Your task to perform on an android device: show emergency info Image 0: 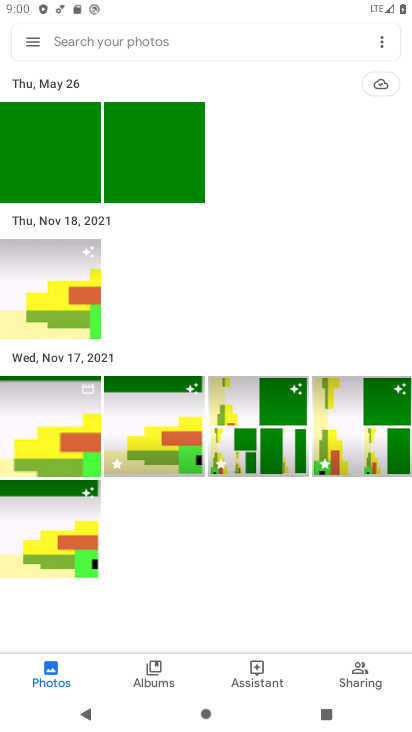
Step 0: click (398, 478)
Your task to perform on an android device: show emergency info Image 1: 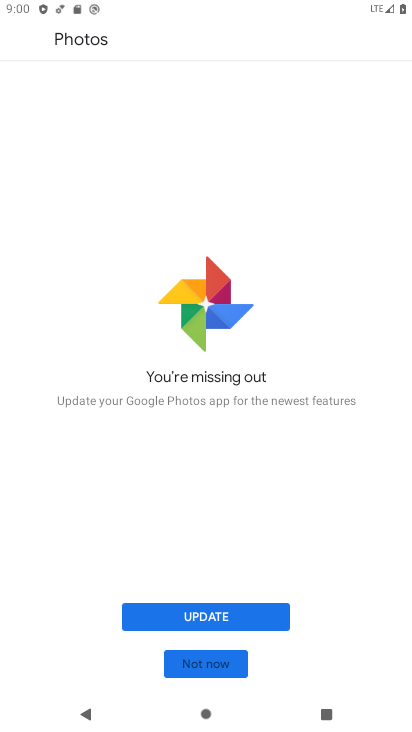
Step 1: press home button
Your task to perform on an android device: show emergency info Image 2: 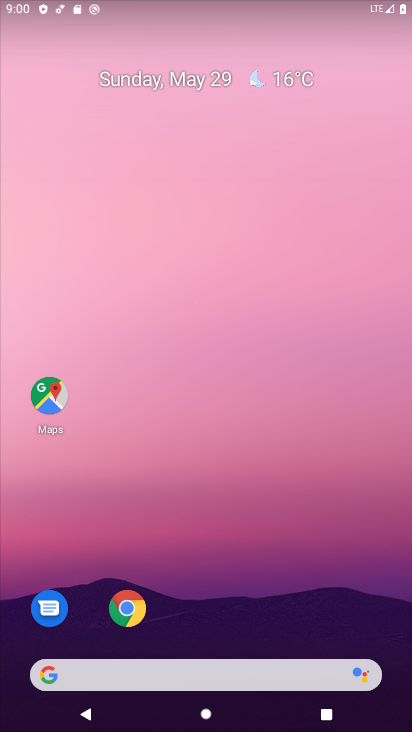
Step 2: drag from (191, 15) to (292, 21)
Your task to perform on an android device: show emergency info Image 3: 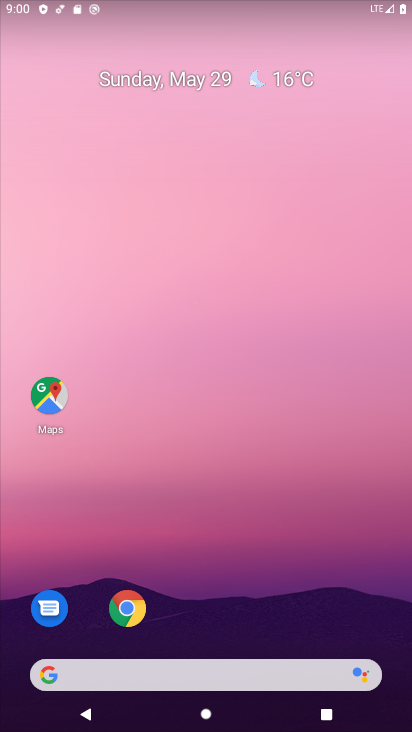
Step 3: drag from (175, 616) to (213, 99)
Your task to perform on an android device: show emergency info Image 4: 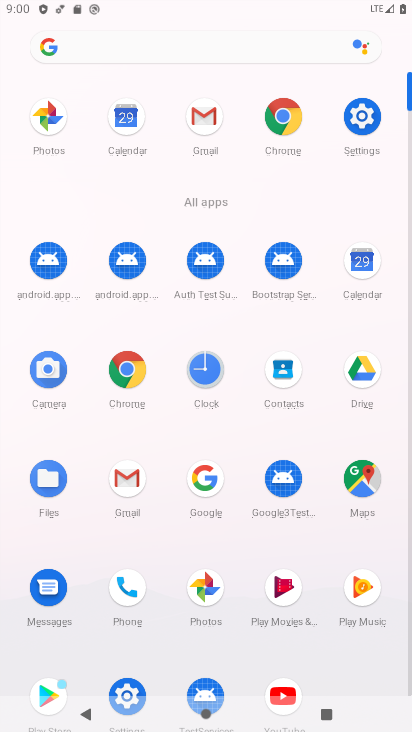
Step 4: click (354, 132)
Your task to perform on an android device: show emergency info Image 5: 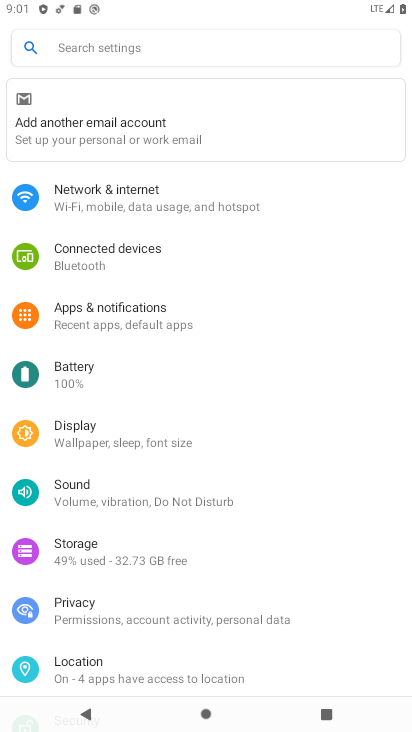
Step 5: drag from (148, 614) to (328, 7)
Your task to perform on an android device: show emergency info Image 6: 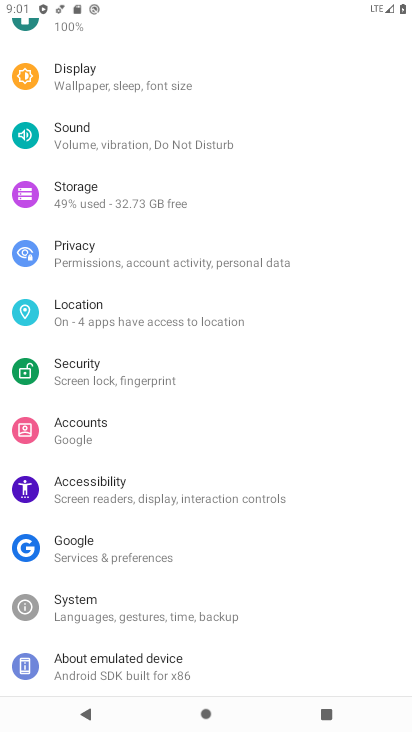
Step 6: drag from (161, 477) to (336, 657)
Your task to perform on an android device: show emergency info Image 7: 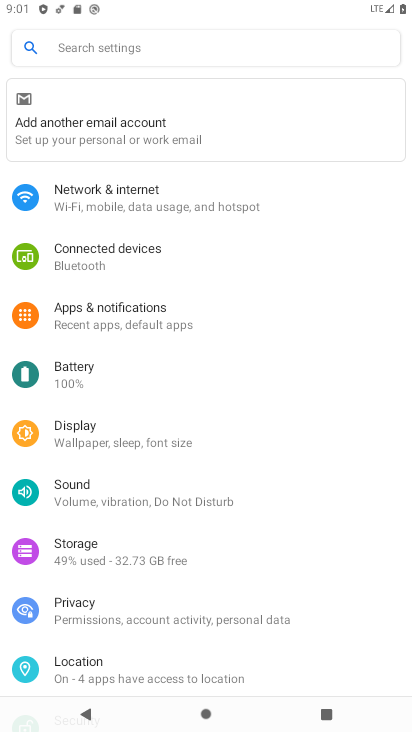
Step 7: click (107, 661)
Your task to perform on an android device: show emergency info Image 8: 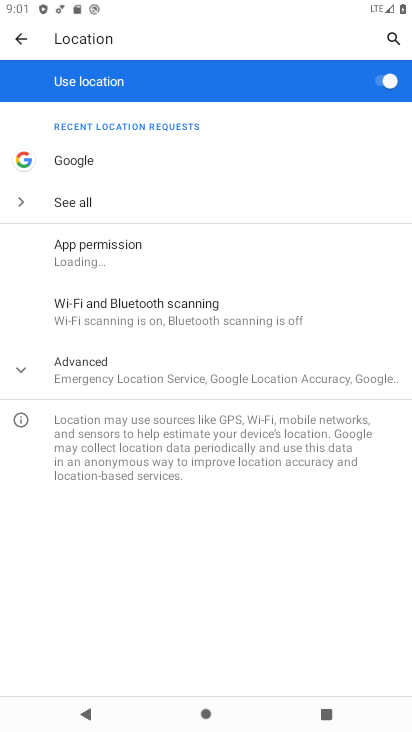
Step 8: press back button
Your task to perform on an android device: show emergency info Image 9: 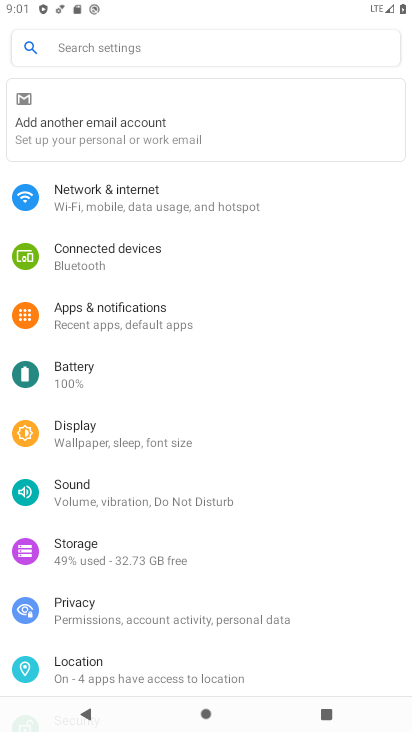
Step 9: drag from (175, 650) to (153, 63)
Your task to perform on an android device: show emergency info Image 10: 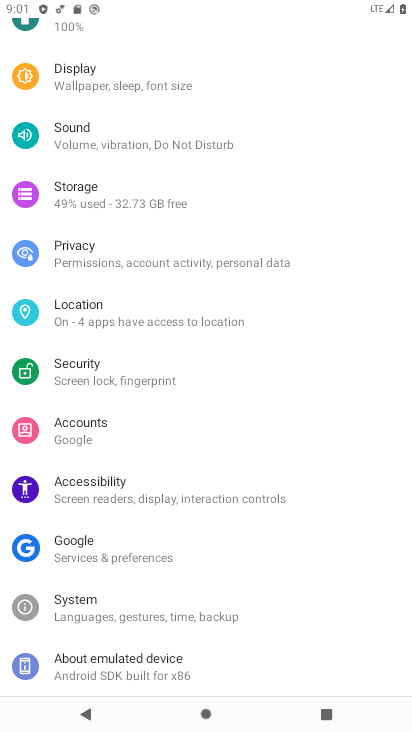
Step 10: click (124, 661)
Your task to perform on an android device: show emergency info Image 11: 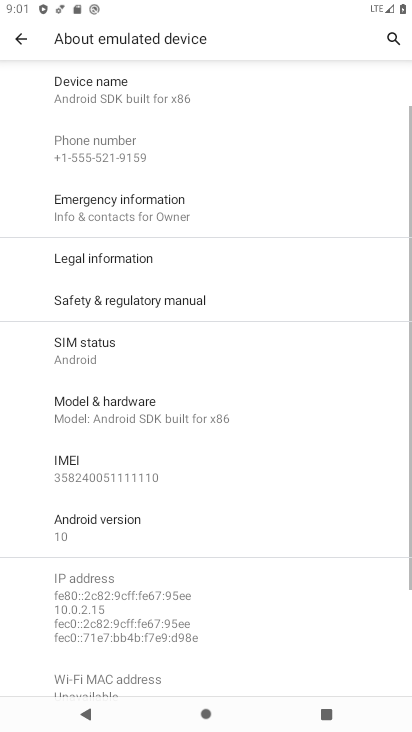
Step 11: click (111, 235)
Your task to perform on an android device: show emergency info Image 12: 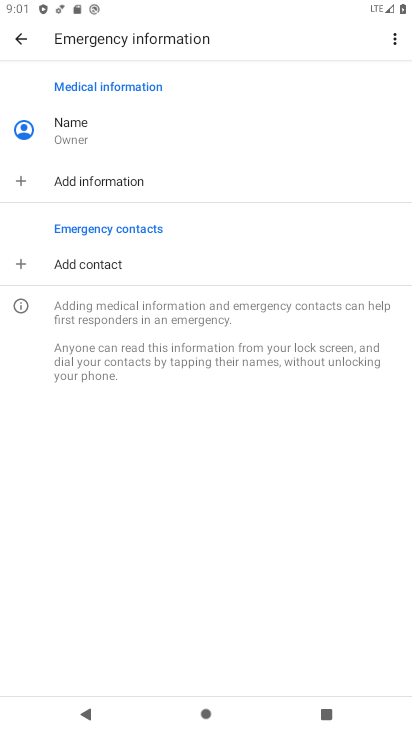
Step 12: task complete